Your task to perform on an android device: Turn off the flashlight Image 0: 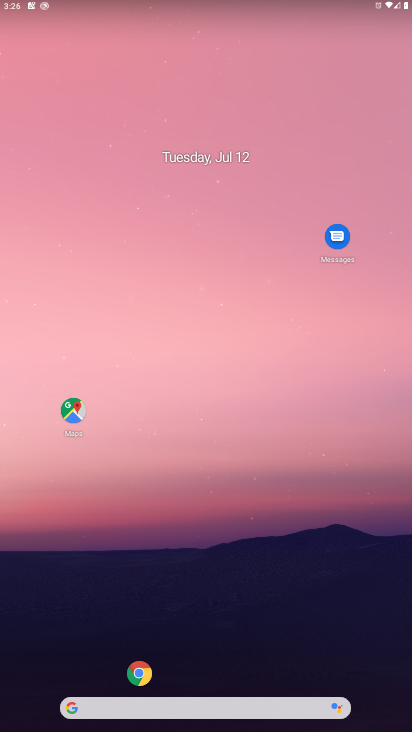
Step 0: drag from (57, 633) to (393, 172)
Your task to perform on an android device: Turn off the flashlight Image 1: 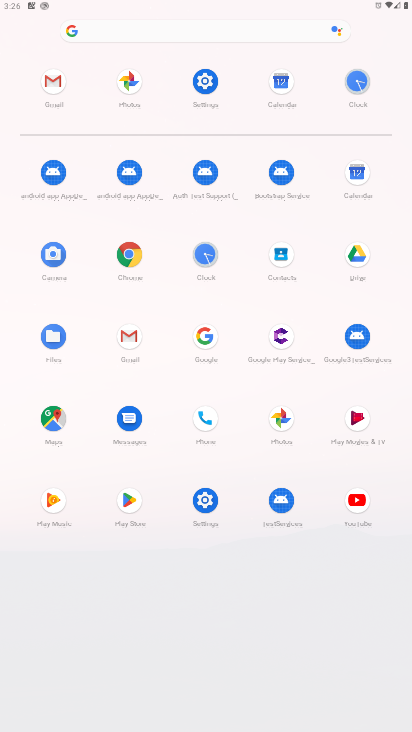
Step 1: click (202, 486)
Your task to perform on an android device: Turn off the flashlight Image 2: 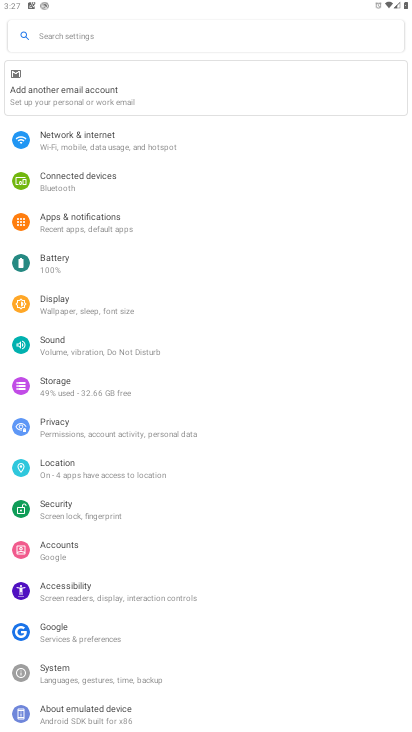
Step 2: click (76, 315)
Your task to perform on an android device: Turn off the flashlight Image 3: 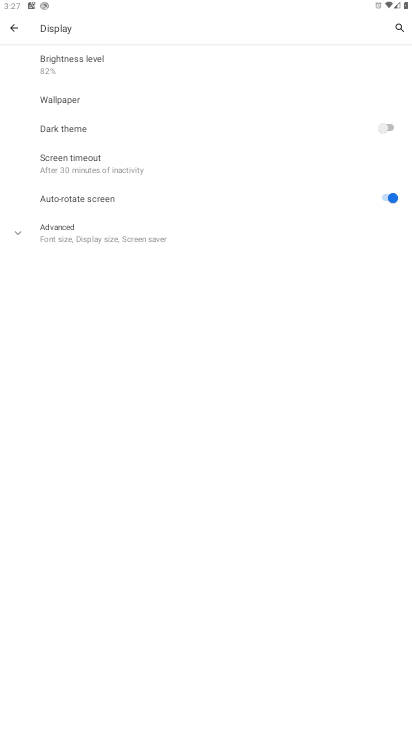
Step 3: click (118, 220)
Your task to perform on an android device: Turn off the flashlight Image 4: 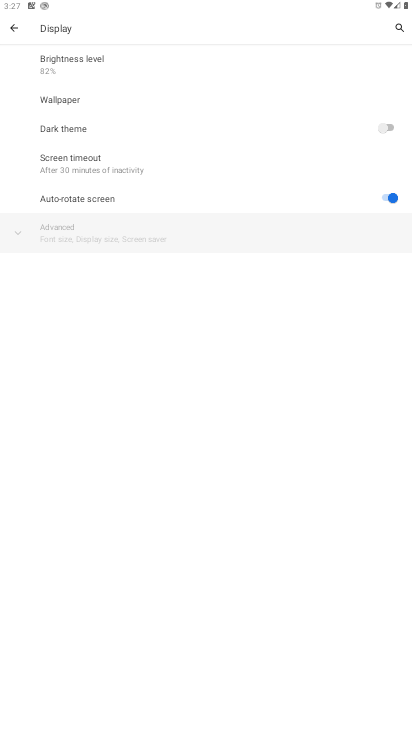
Step 4: click (118, 230)
Your task to perform on an android device: Turn off the flashlight Image 5: 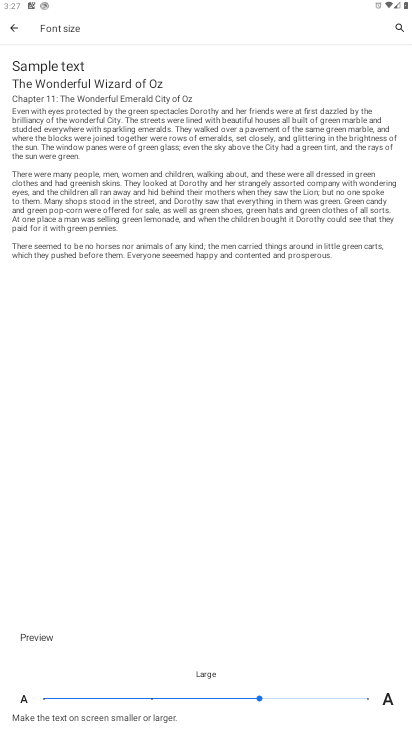
Step 5: click (16, 20)
Your task to perform on an android device: Turn off the flashlight Image 6: 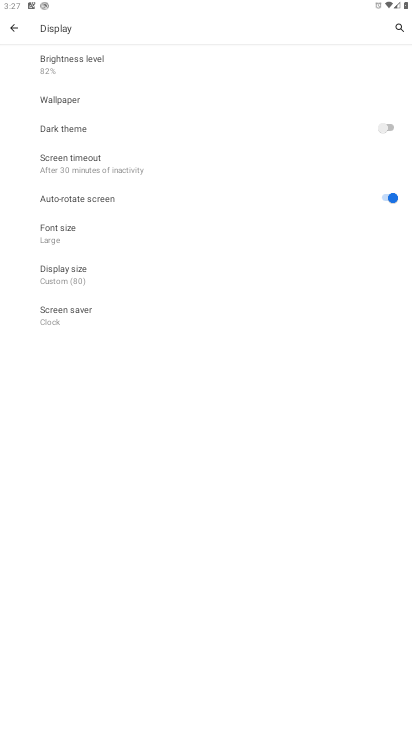
Step 6: click (14, 26)
Your task to perform on an android device: Turn off the flashlight Image 7: 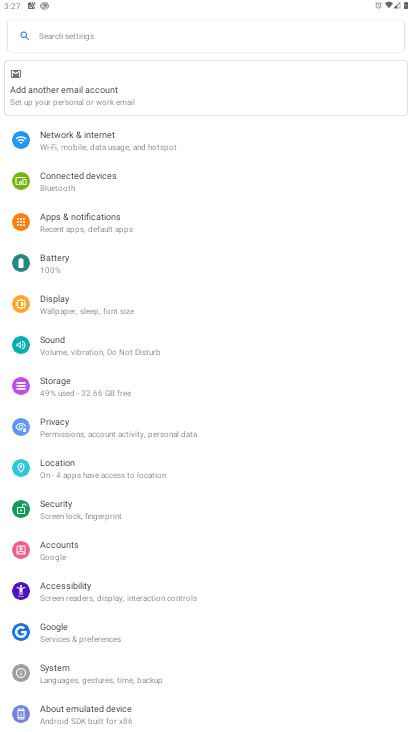
Step 7: click (14, 29)
Your task to perform on an android device: Turn off the flashlight Image 8: 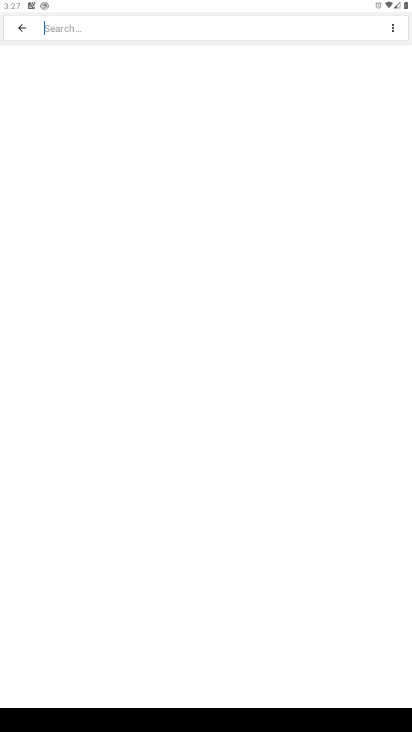
Step 8: task complete